Your task to perform on an android device: Open calendar and show me the third week of next month Image 0: 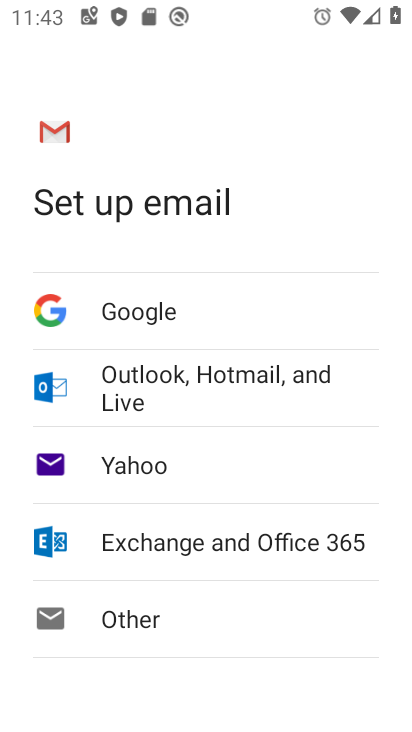
Step 0: press home button
Your task to perform on an android device: Open calendar and show me the third week of next month Image 1: 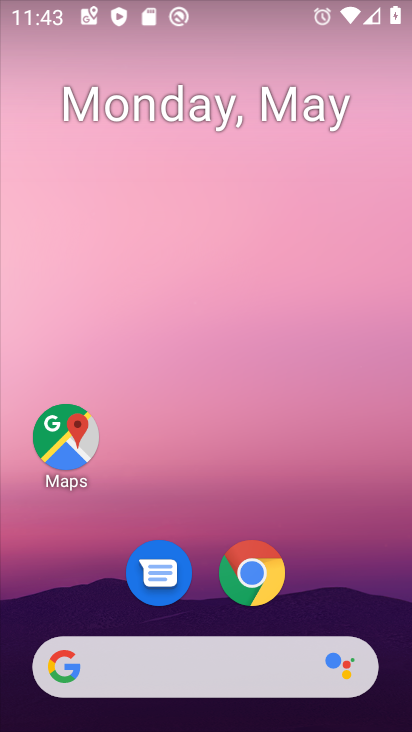
Step 1: drag from (148, 724) to (188, 73)
Your task to perform on an android device: Open calendar and show me the third week of next month Image 2: 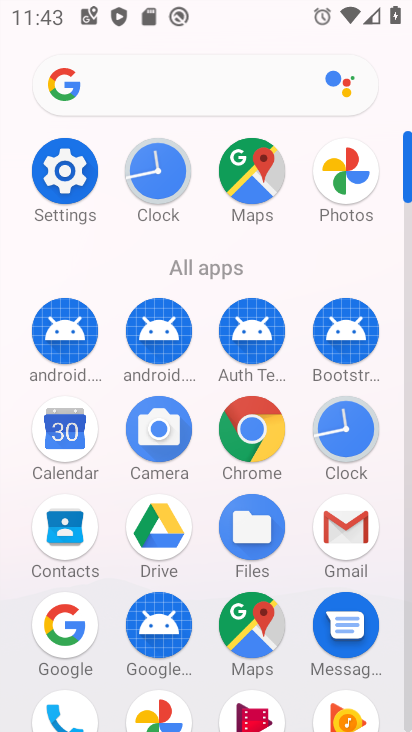
Step 2: click (78, 446)
Your task to perform on an android device: Open calendar and show me the third week of next month Image 3: 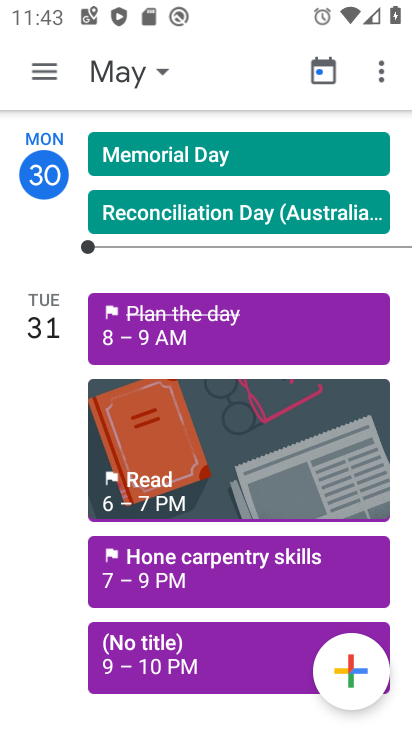
Step 3: click (129, 78)
Your task to perform on an android device: Open calendar and show me the third week of next month Image 4: 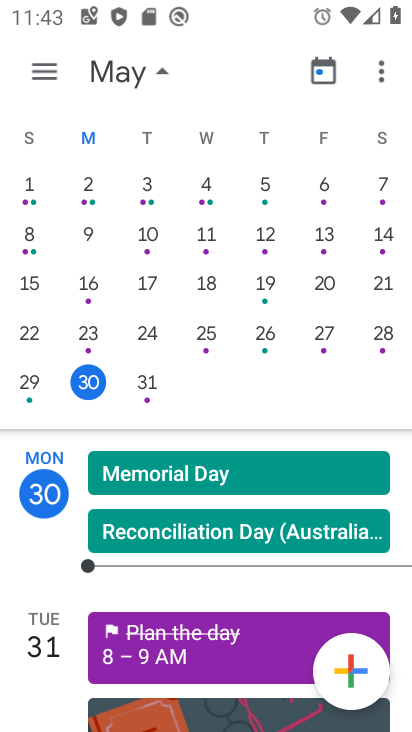
Step 4: drag from (371, 390) to (10, 333)
Your task to perform on an android device: Open calendar and show me the third week of next month Image 5: 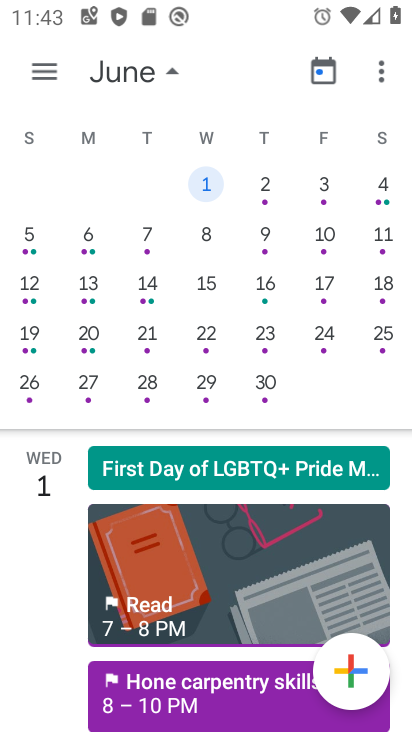
Step 5: click (156, 66)
Your task to perform on an android device: Open calendar and show me the third week of next month Image 6: 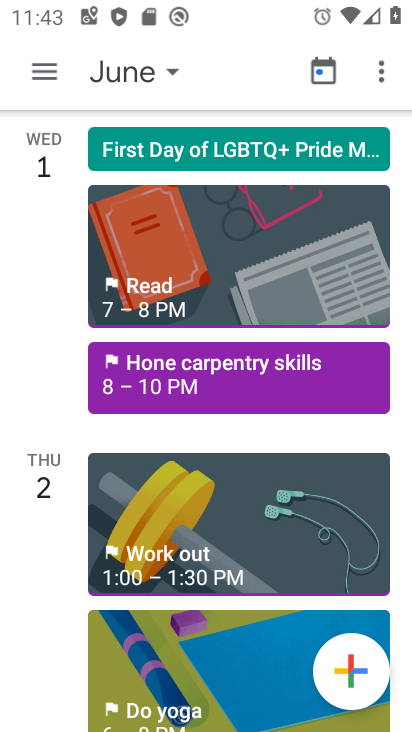
Step 6: click (42, 66)
Your task to perform on an android device: Open calendar and show me the third week of next month Image 7: 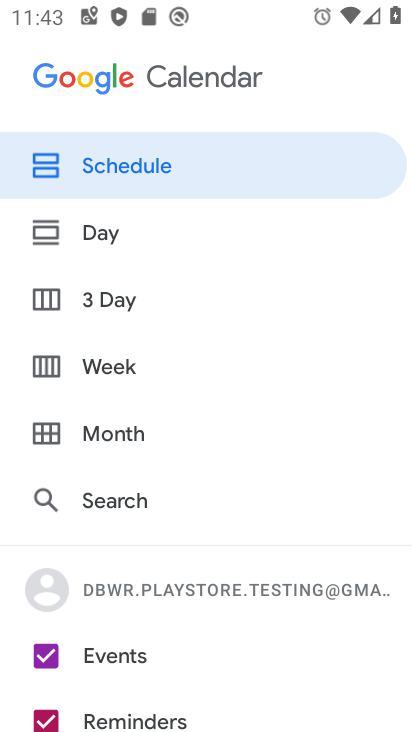
Step 7: click (127, 369)
Your task to perform on an android device: Open calendar and show me the third week of next month Image 8: 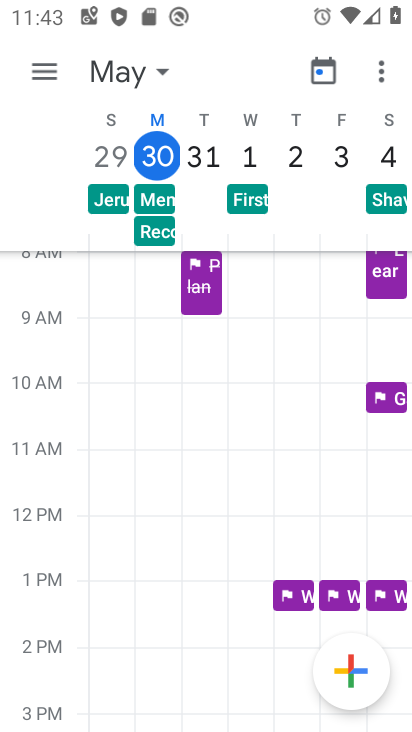
Step 8: task complete